Your task to perform on an android device: Go to display settings Image 0: 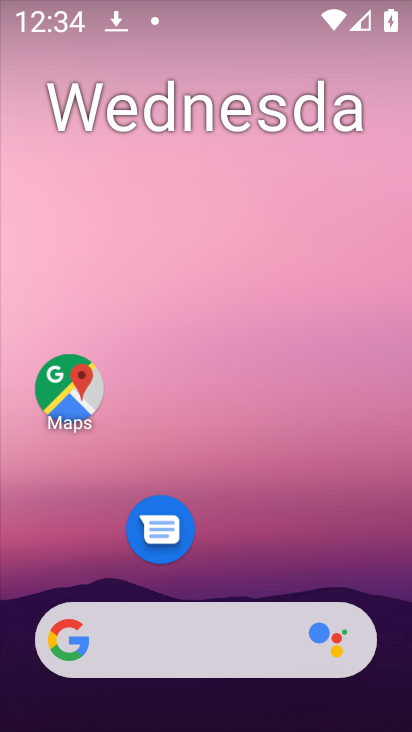
Step 0: drag from (214, 610) to (186, 0)
Your task to perform on an android device: Go to display settings Image 1: 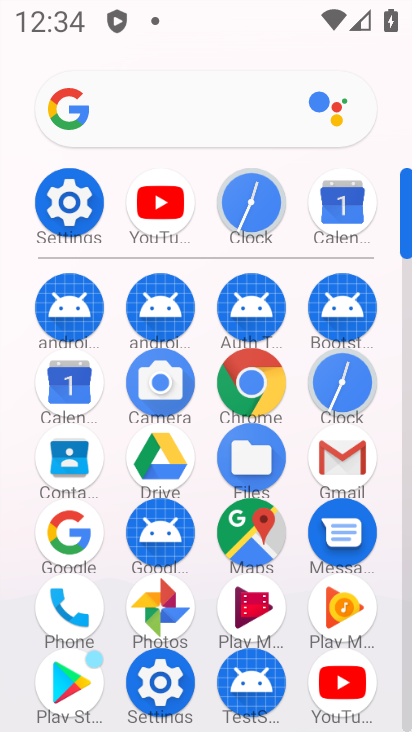
Step 1: click (149, 694)
Your task to perform on an android device: Go to display settings Image 2: 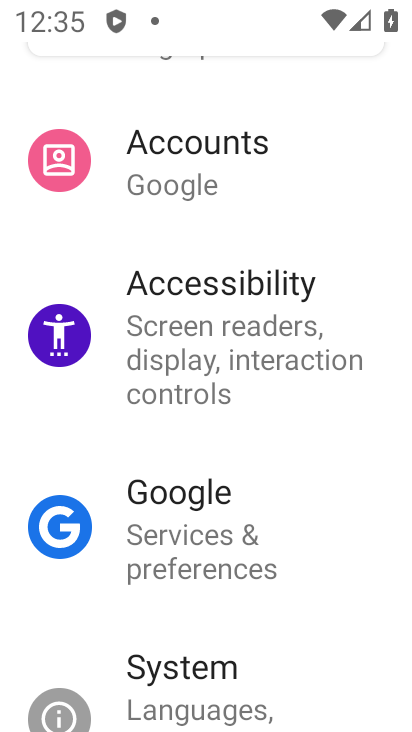
Step 2: drag from (197, 237) to (194, 656)
Your task to perform on an android device: Go to display settings Image 3: 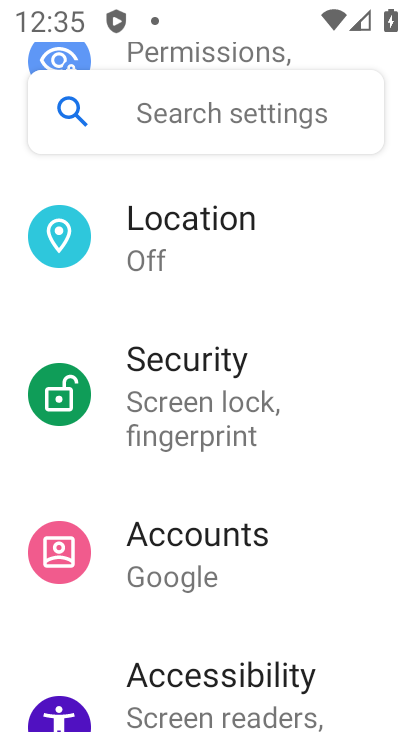
Step 3: drag from (247, 219) to (212, 683)
Your task to perform on an android device: Go to display settings Image 4: 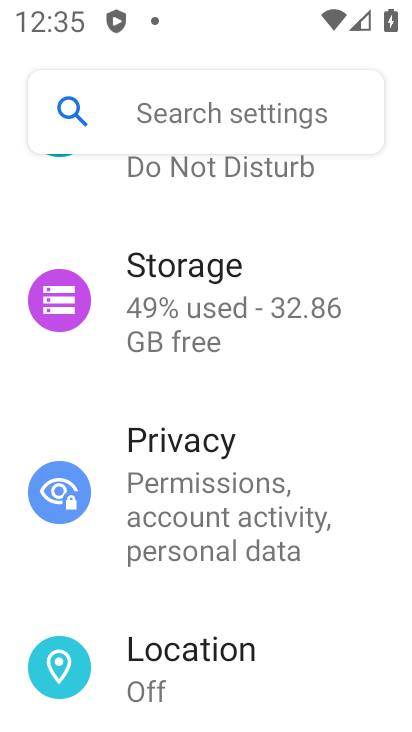
Step 4: drag from (215, 264) to (252, 626)
Your task to perform on an android device: Go to display settings Image 5: 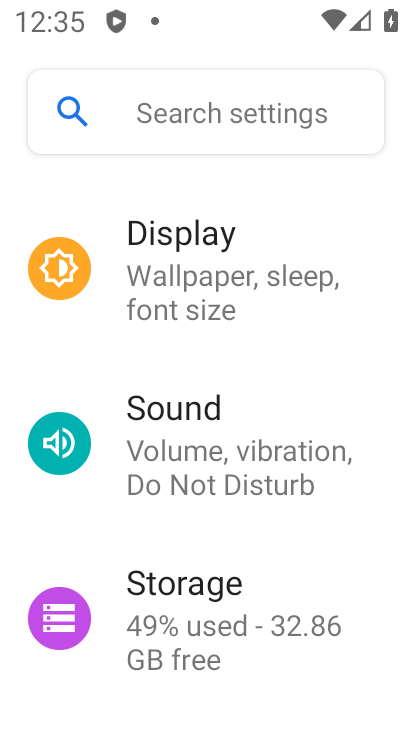
Step 5: click (205, 300)
Your task to perform on an android device: Go to display settings Image 6: 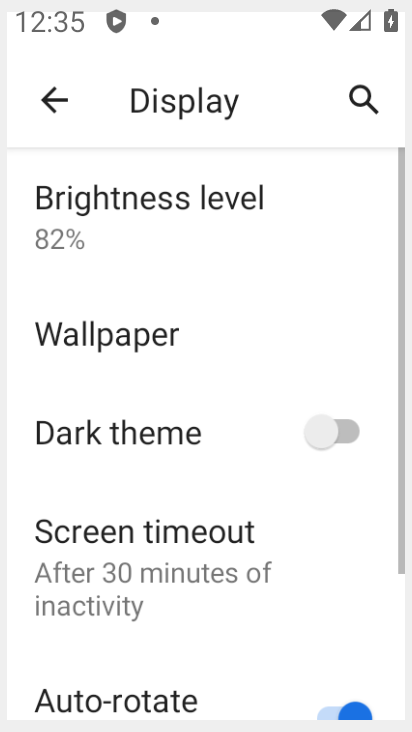
Step 6: task complete